Your task to perform on an android device: Is it going to rain this weekend? Image 0: 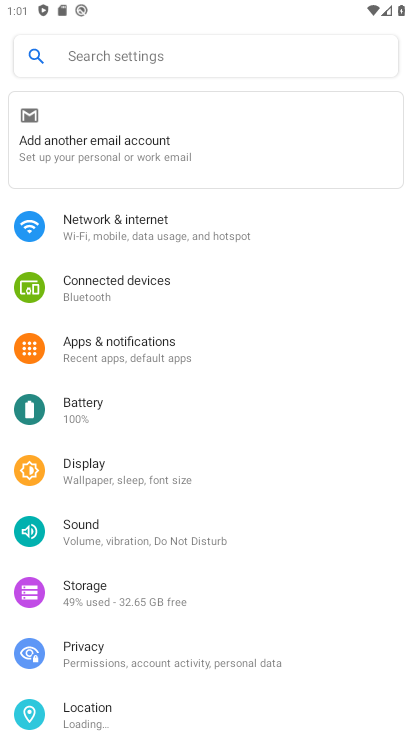
Step 0: press home button
Your task to perform on an android device: Is it going to rain this weekend? Image 1: 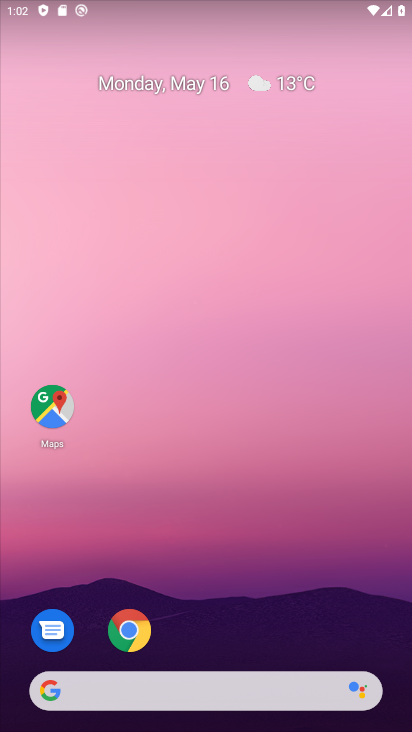
Step 1: drag from (236, 615) to (255, 323)
Your task to perform on an android device: Is it going to rain this weekend? Image 2: 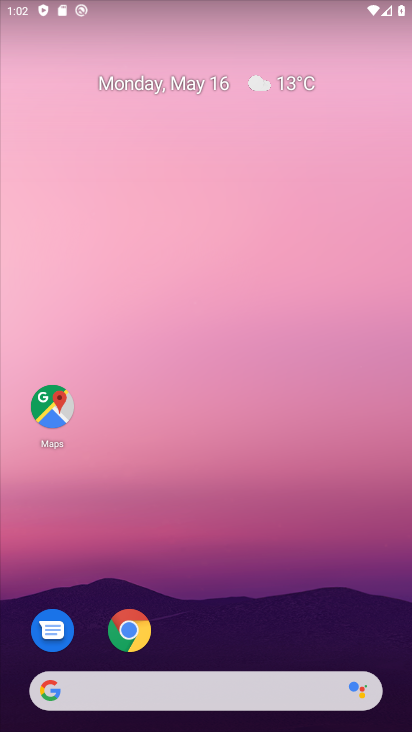
Step 2: click (105, 687)
Your task to perform on an android device: Is it going to rain this weekend? Image 3: 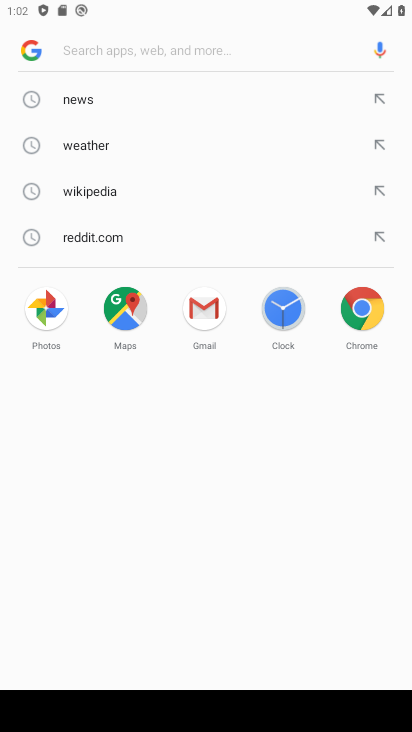
Step 3: click (166, 149)
Your task to perform on an android device: Is it going to rain this weekend? Image 4: 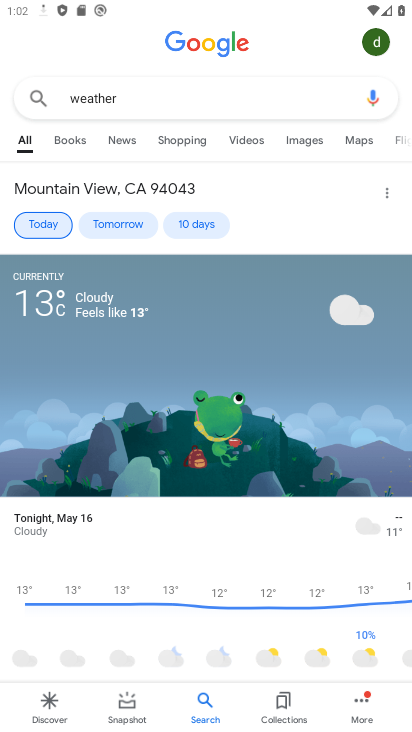
Step 4: drag from (155, 565) to (200, 275)
Your task to perform on an android device: Is it going to rain this weekend? Image 5: 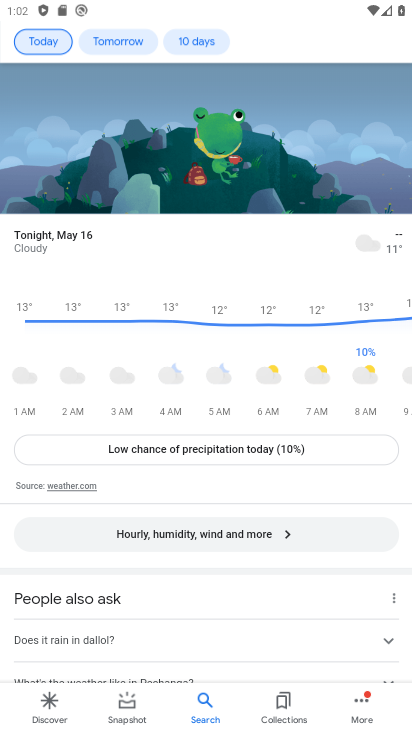
Step 5: click (247, 300)
Your task to perform on an android device: Is it going to rain this weekend? Image 6: 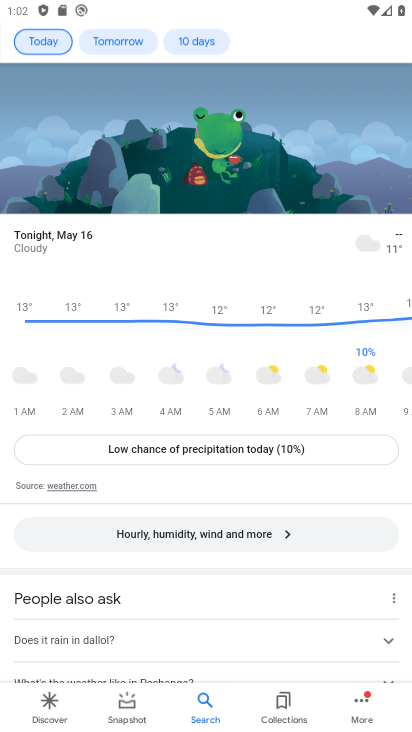
Step 6: click (188, 593)
Your task to perform on an android device: Is it going to rain this weekend? Image 7: 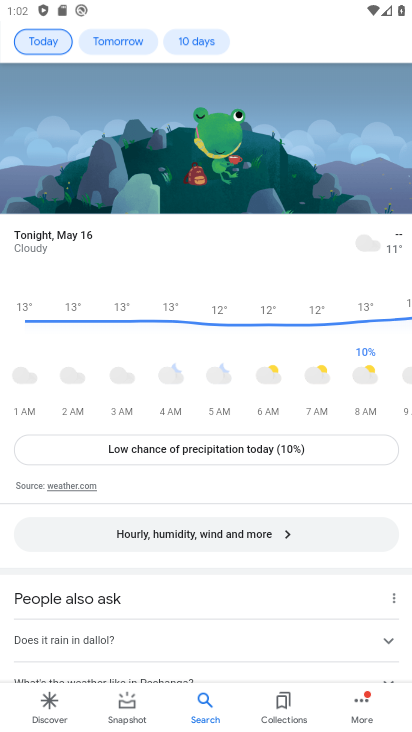
Step 7: click (226, 150)
Your task to perform on an android device: Is it going to rain this weekend? Image 8: 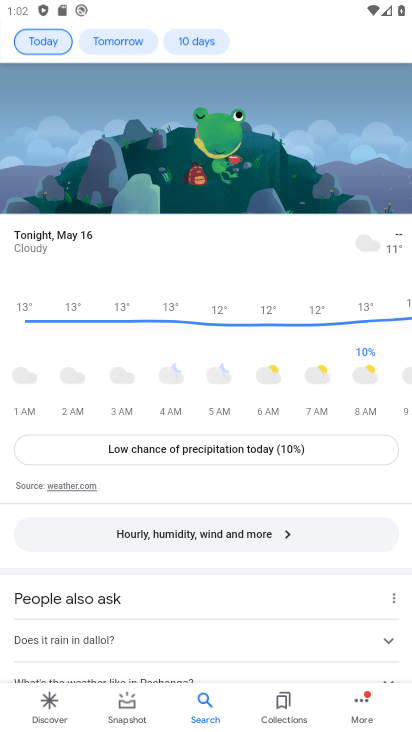
Step 8: drag from (211, 273) to (87, 730)
Your task to perform on an android device: Is it going to rain this weekend? Image 9: 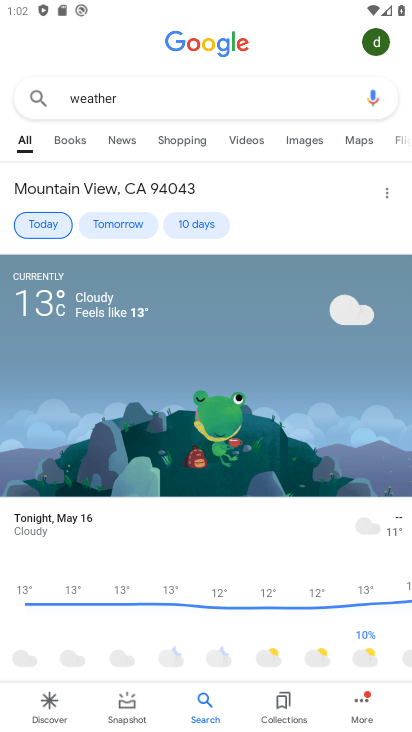
Step 9: click (182, 227)
Your task to perform on an android device: Is it going to rain this weekend? Image 10: 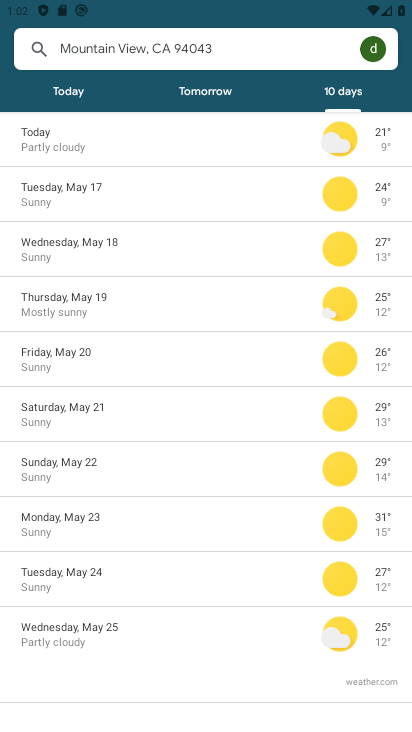
Step 10: click (172, 588)
Your task to perform on an android device: Is it going to rain this weekend? Image 11: 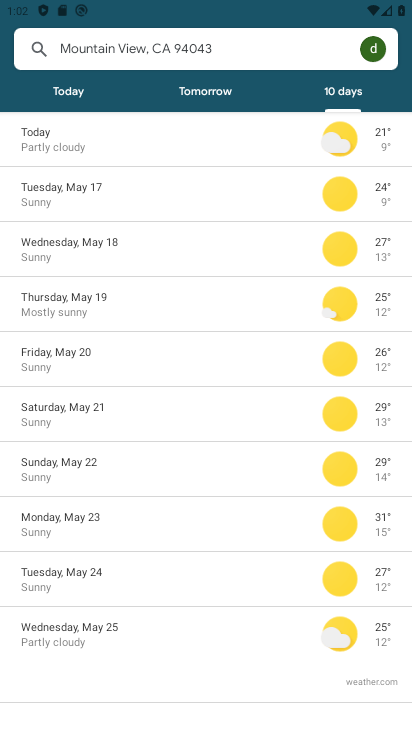
Step 11: task complete